Your task to perform on an android device: toggle javascript in the chrome app Image 0: 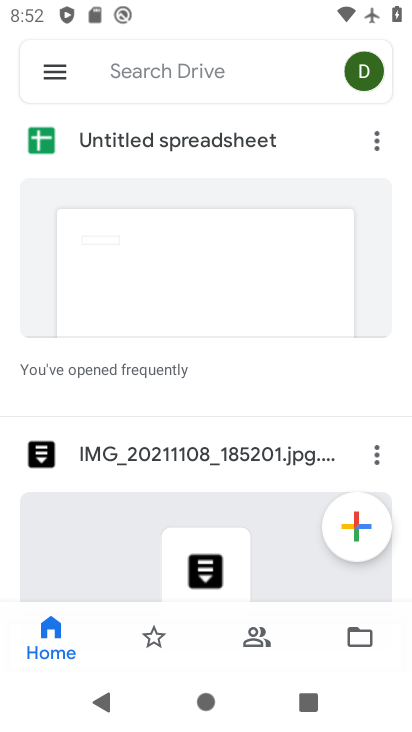
Step 0: press home button
Your task to perform on an android device: toggle javascript in the chrome app Image 1: 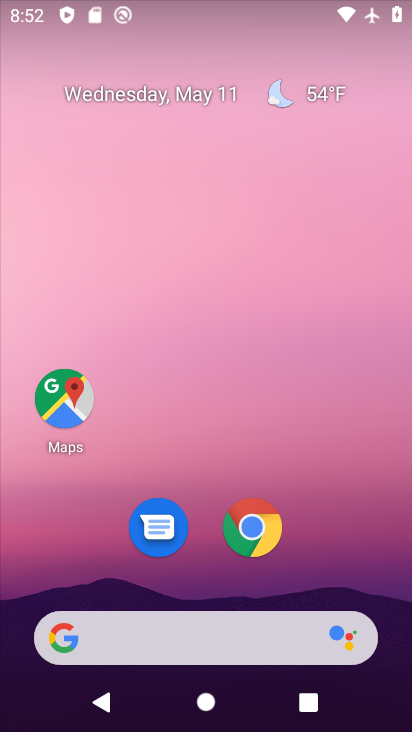
Step 1: click (258, 528)
Your task to perform on an android device: toggle javascript in the chrome app Image 2: 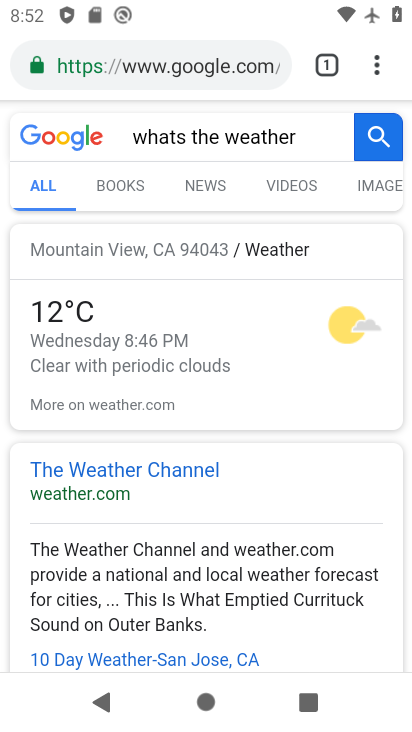
Step 2: click (376, 71)
Your task to perform on an android device: toggle javascript in the chrome app Image 3: 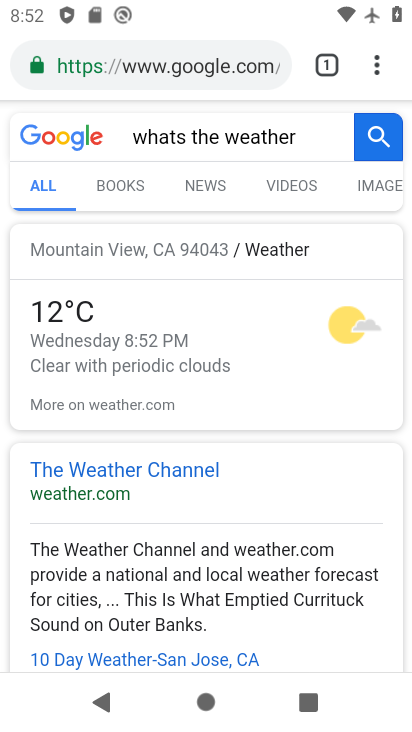
Step 3: drag from (372, 69) to (219, 581)
Your task to perform on an android device: toggle javascript in the chrome app Image 4: 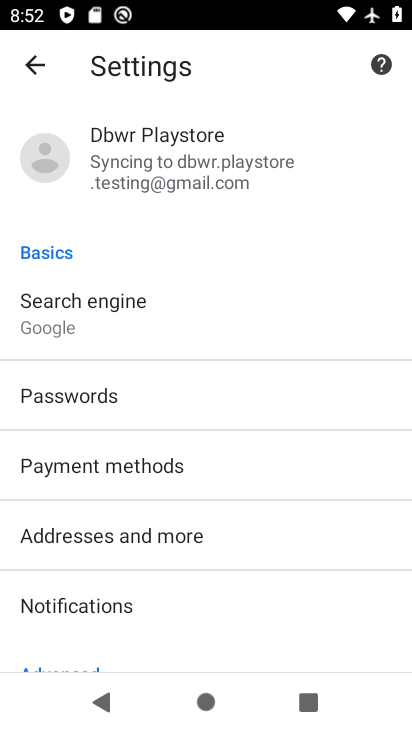
Step 4: drag from (248, 618) to (239, 298)
Your task to perform on an android device: toggle javascript in the chrome app Image 5: 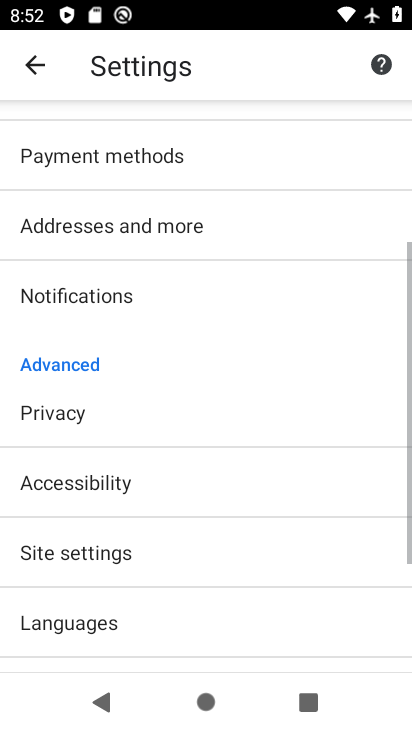
Step 5: click (129, 564)
Your task to perform on an android device: toggle javascript in the chrome app Image 6: 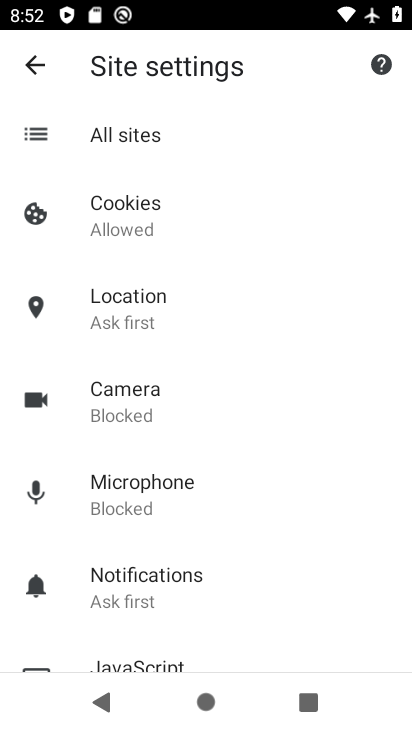
Step 6: drag from (249, 596) to (247, 309)
Your task to perform on an android device: toggle javascript in the chrome app Image 7: 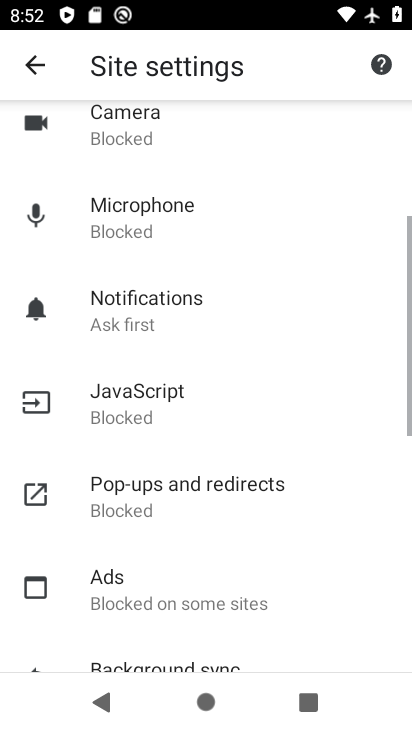
Step 7: drag from (247, 261) to (252, 199)
Your task to perform on an android device: toggle javascript in the chrome app Image 8: 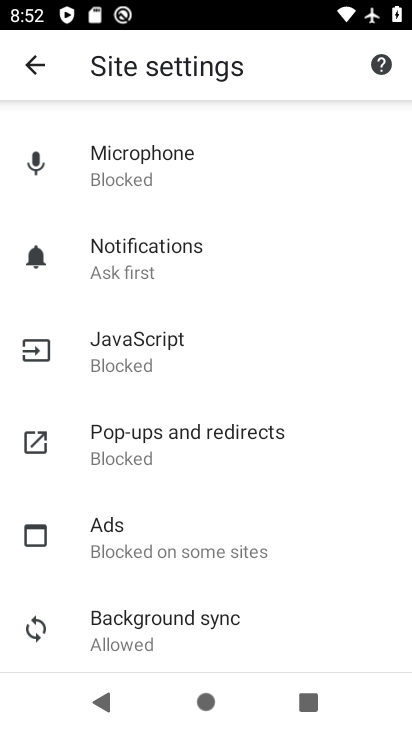
Step 8: click (164, 350)
Your task to perform on an android device: toggle javascript in the chrome app Image 9: 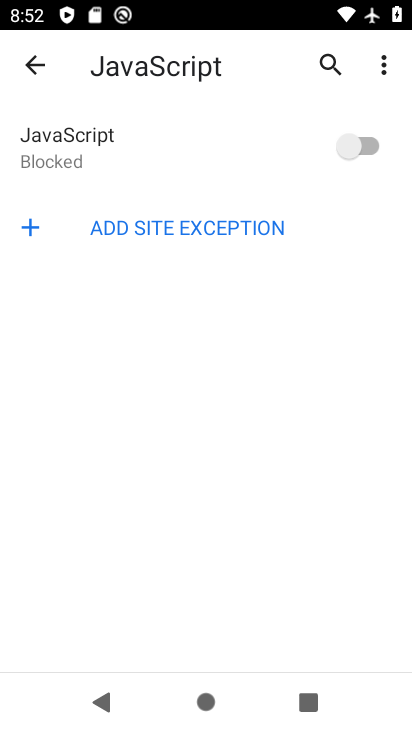
Step 9: click (372, 140)
Your task to perform on an android device: toggle javascript in the chrome app Image 10: 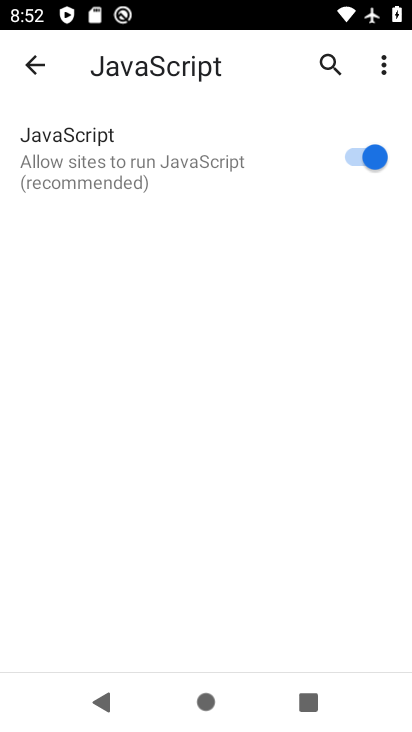
Step 10: task complete